Your task to perform on an android device: Do I have any events tomorrow? Image 0: 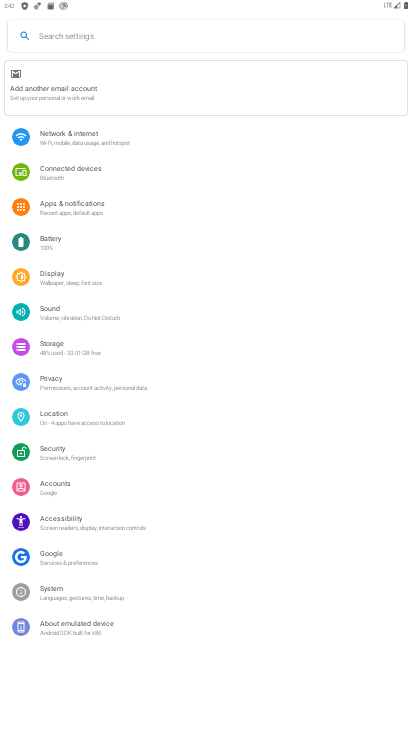
Step 0: press home button
Your task to perform on an android device: Do I have any events tomorrow? Image 1: 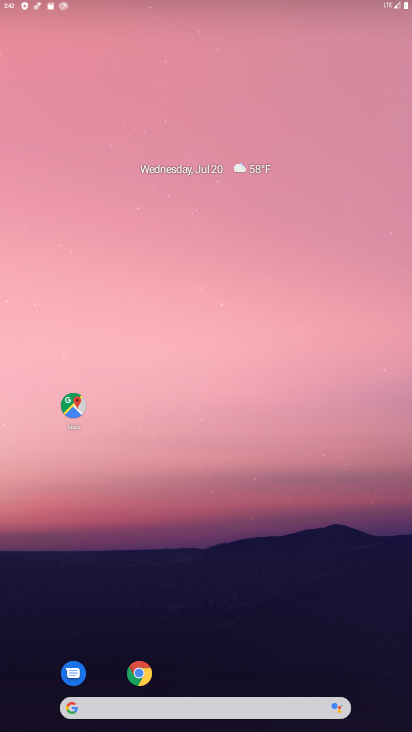
Step 1: drag from (247, 476) to (269, 208)
Your task to perform on an android device: Do I have any events tomorrow? Image 2: 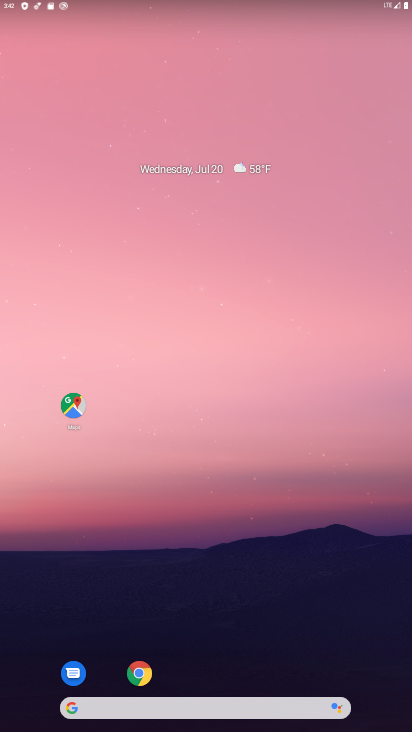
Step 2: drag from (220, 551) to (242, 191)
Your task to perform on an android device: Do I have any events tomorrow? Image 3: 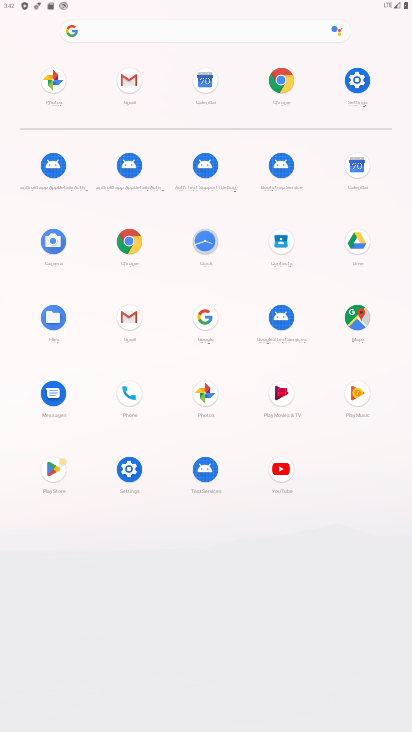
Step 3: click (360, 173)
Your task to perform on an android device: Do I have any events tomorrow? Image 4: 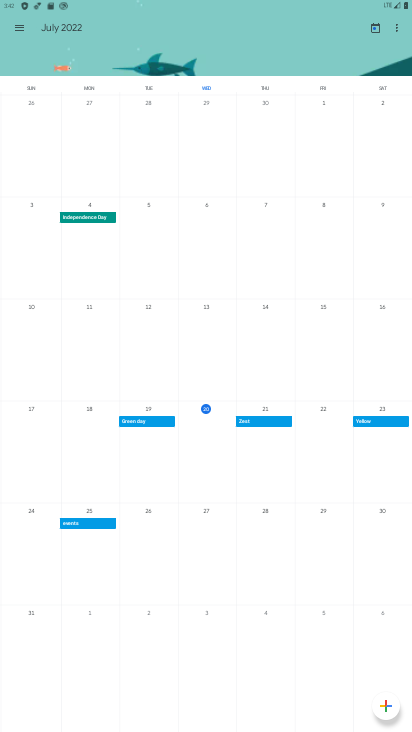
Step 4: task complete